Your task to perform on an android device: change text size in settings app Image 0: 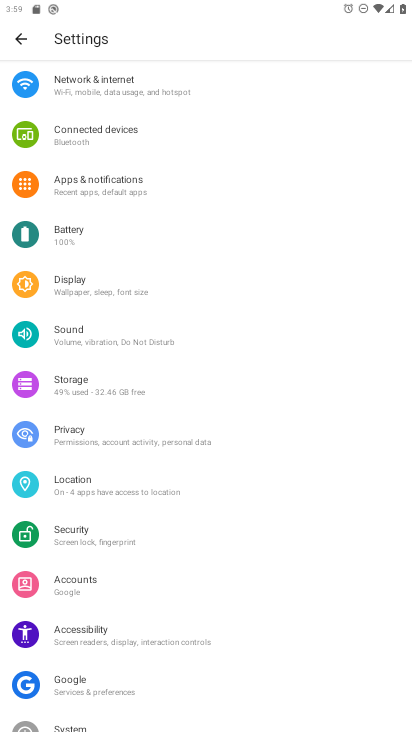
Step 0: click (117, 288)
Your task to perform on an android device: change text size in settings app Image 1: 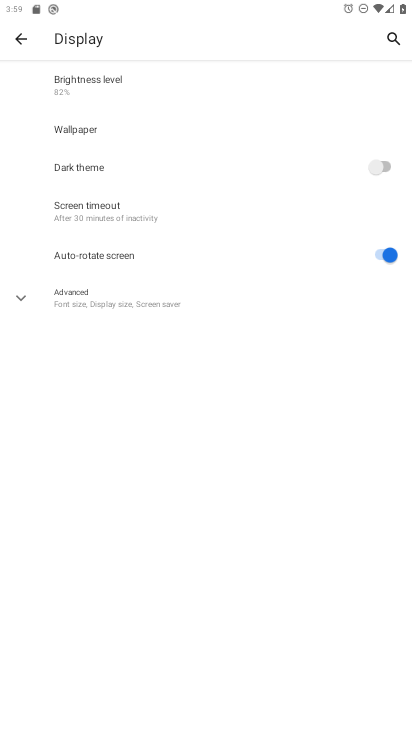
Step 1: click (85, 290)
Your task to perform on an android device: change text size in settings app Image 2: 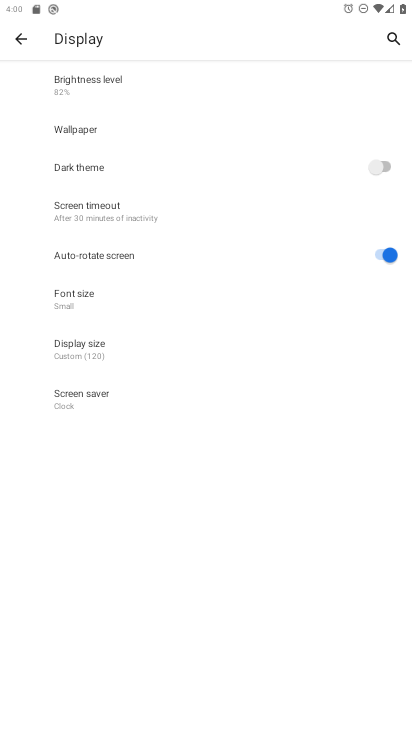
Step 2: click (88, 299)
Your task to perform on an android device: change text size in settings app Image 3: 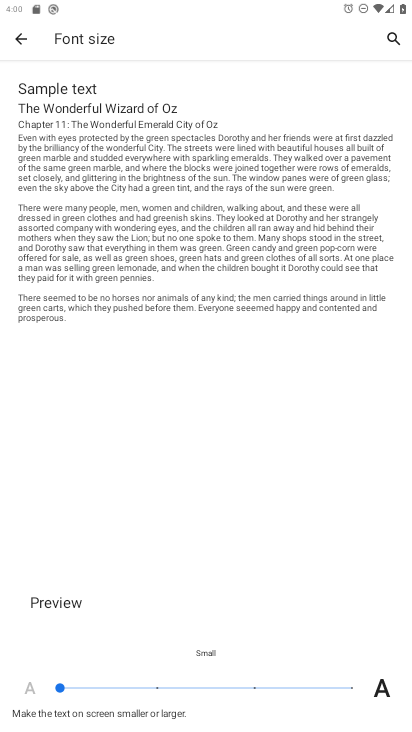
Step 3: click (77, 689)
Your task to perform on an android device: change text size in settings app Image 4: 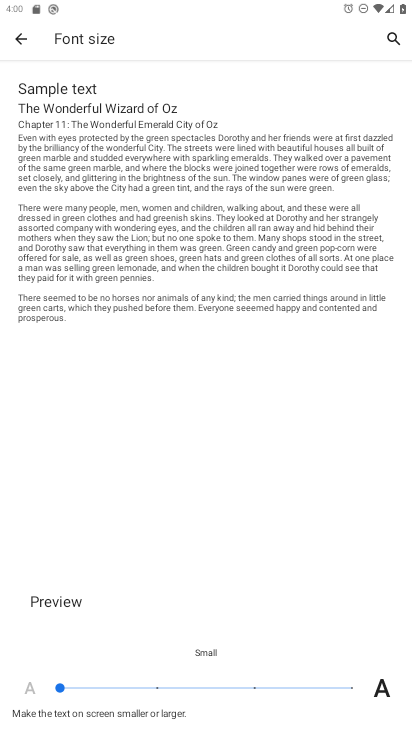
Step 4: click (139, 684)
Your task to perform on an android device: change text size in settings app Image 5: 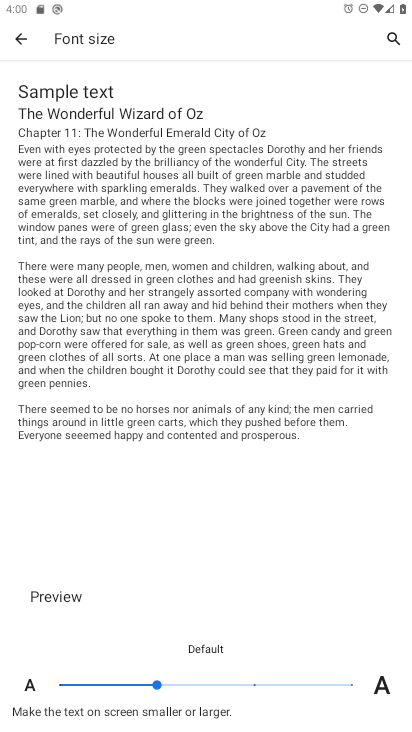
Step 5: task complete